Your task to perform on an android device: allow cookies in the chrome app Image 0: 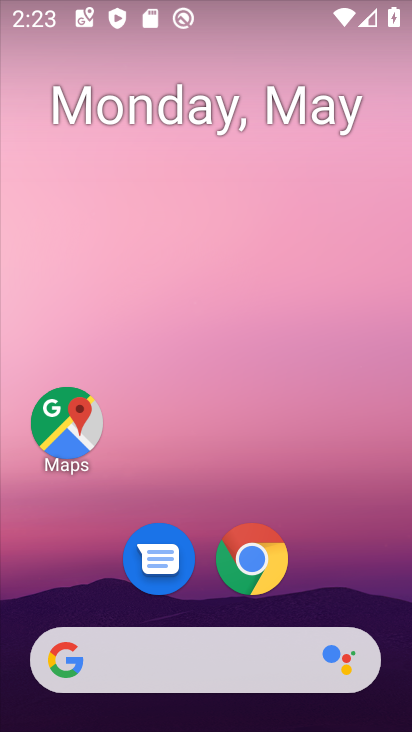
Step 0: click (256, 574)
Your task to perform on an android device: allow cookies in the chrome app Image 1: 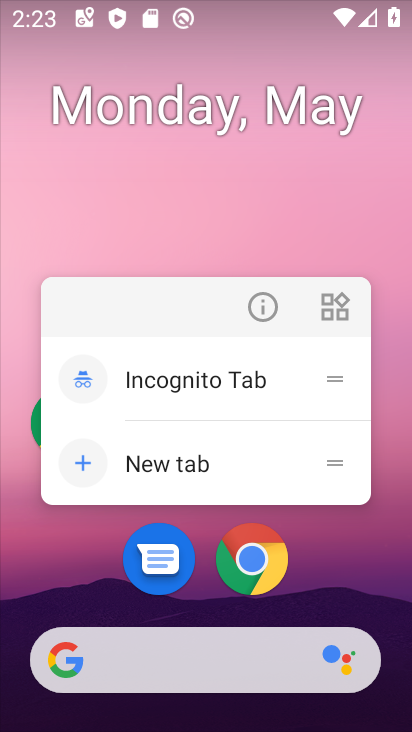
Step 1: click (274, 554)
Your task to perform on an android device: allow cookies in the chrome app Image 2: 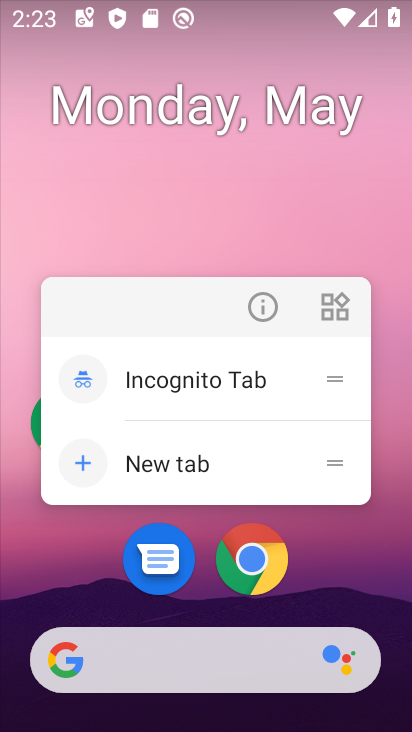
Step 2: click (274, 554)
Your task to perform on an android device: allow cookies in the chrome app Image 3: 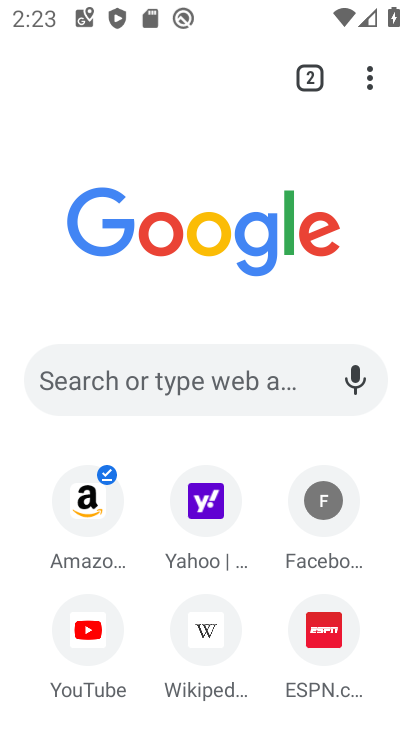
Step 3: click (362, 75)
Your task to perform on an android device: allow cookies in the chrome app Image 4: 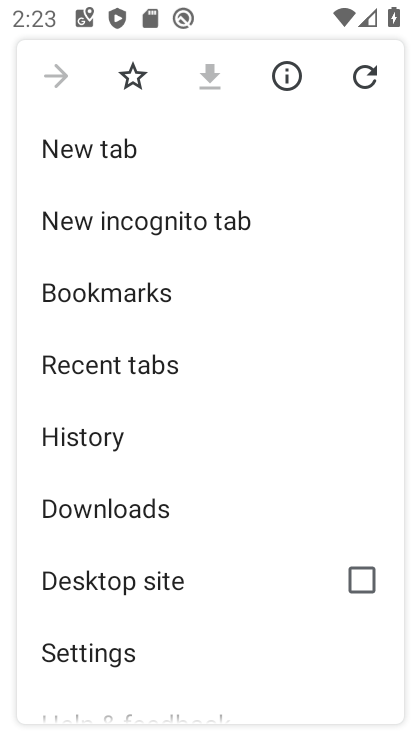
Step 4: click (126, 653)
Your task to perform on an android device: allow cookies in the chrome app Image 5: 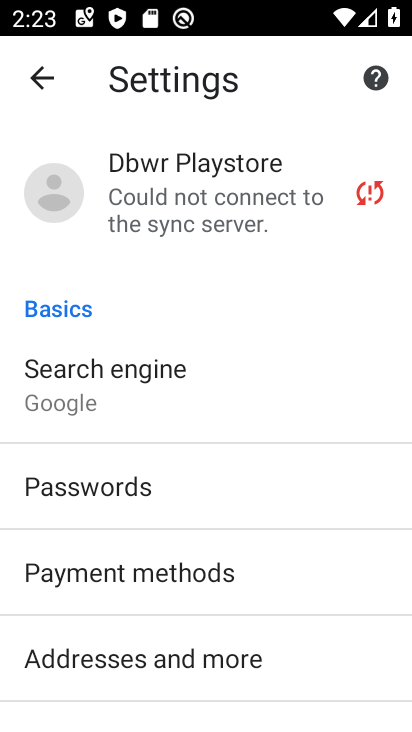
Step 5: drag from (191, 641) to (158, 96)
Your task to perform on an android device: allow cookies in the chrome app Image 6: 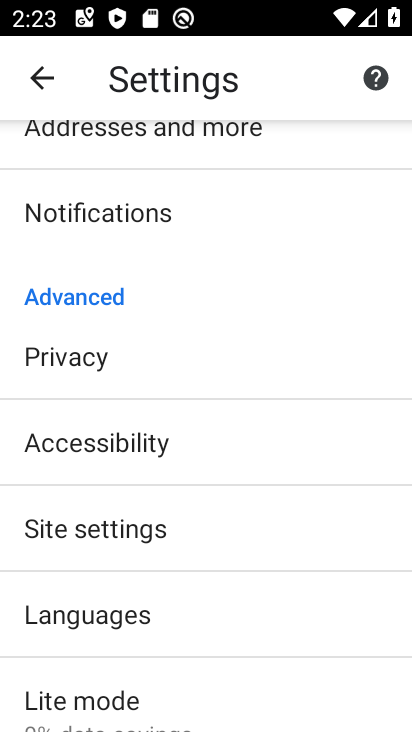
Step 6: click (111, 529)
Your task to perform on an android device: allow cookies in the chrome app Image 7: 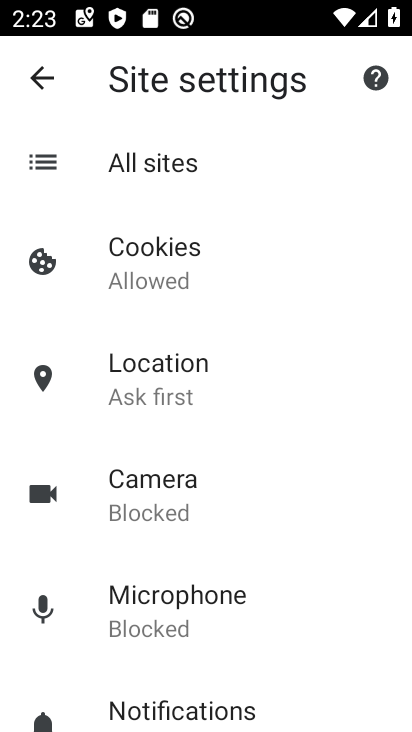
Step 7: click (182, 272)
Your task to perform on an android device: allow cookies in the chrome app Image 8: 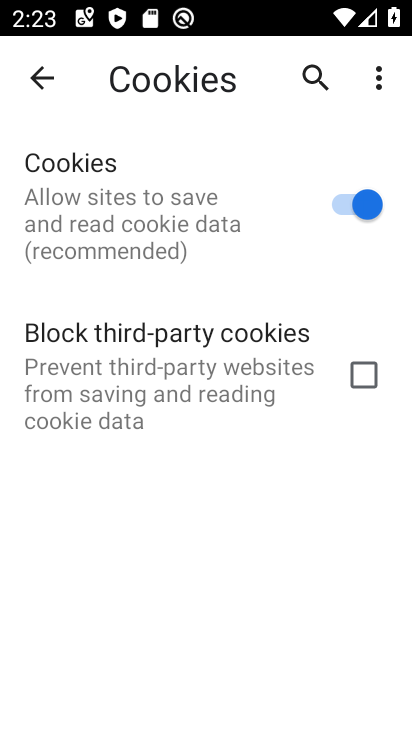
Step 8: task complete